Your task to perform on an android device: Find coffee shops on Maps Image 0: 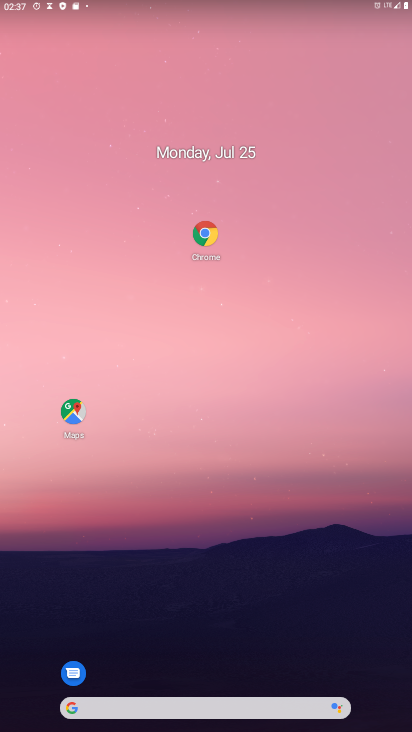
Step 0: drag from (314, 706) to (297, 128)
Your task to perform on an android device: Find coffee shops on Maps Image 1: 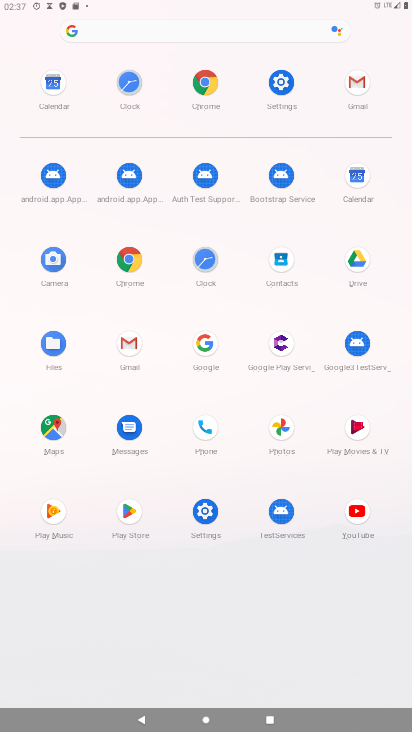
Step 1: click (43, 425)
Your task to perform on an android device: Find coffee shops on Maps Image 2: 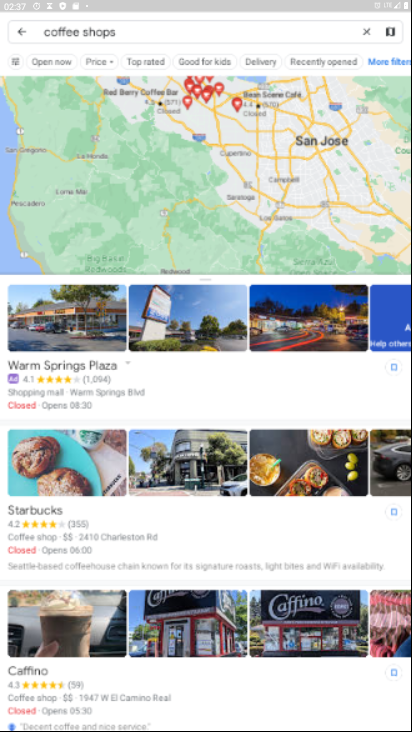
Step 2: task complete